Your task to perform on an android device: Open calendar and show me the third week of next month Image 0: 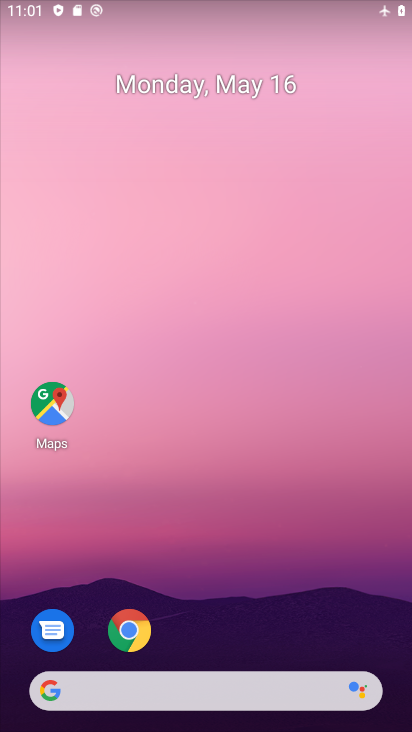
Step 0: drag from (241, 625) to (199, 162)
Your task to perform on an android device: Open calendar and show me the third week of next month Image 1: 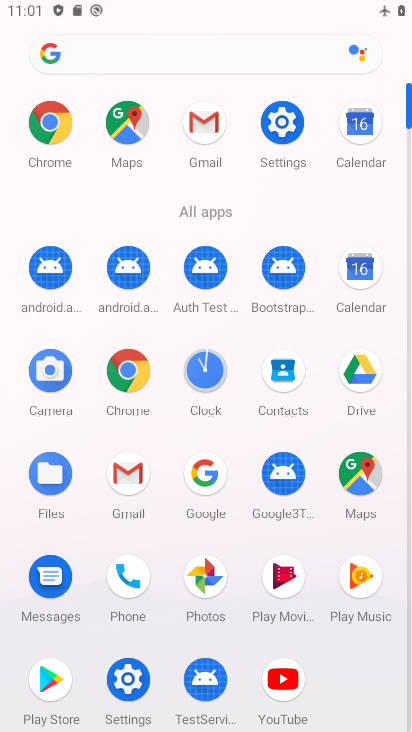
Step 1: click (357, 136)
Your task to perform on an android device: Open calendar and show me the third week of next month Image 2: 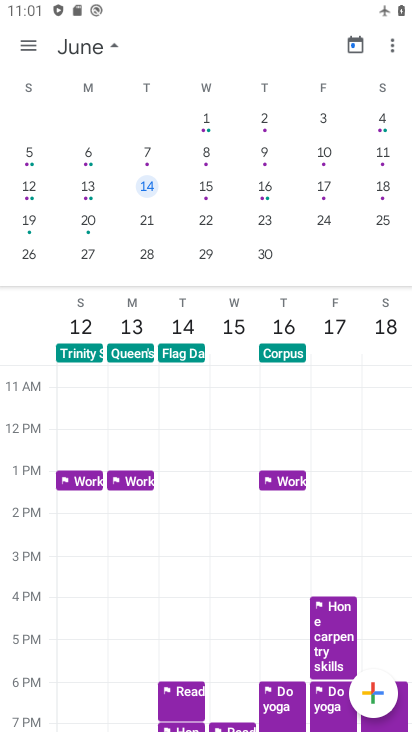
Step 2: click (200, 218)
Your task to perform on an android device: Open calendar and show me the third week of next month Image 3: 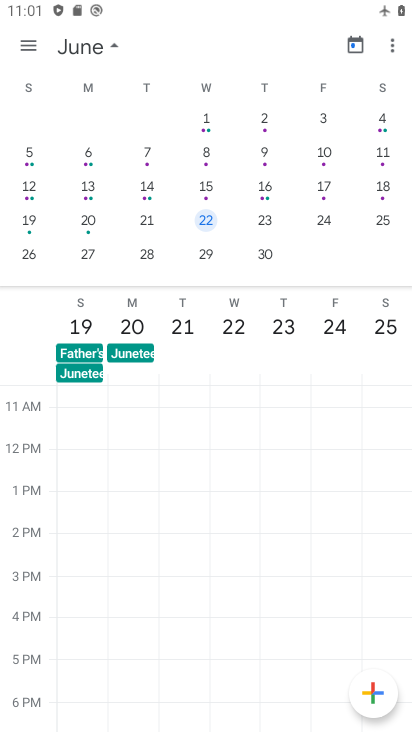
Step 3: task complete